Your task to perform on an android device: delete a single message in the gmail app Image 0: 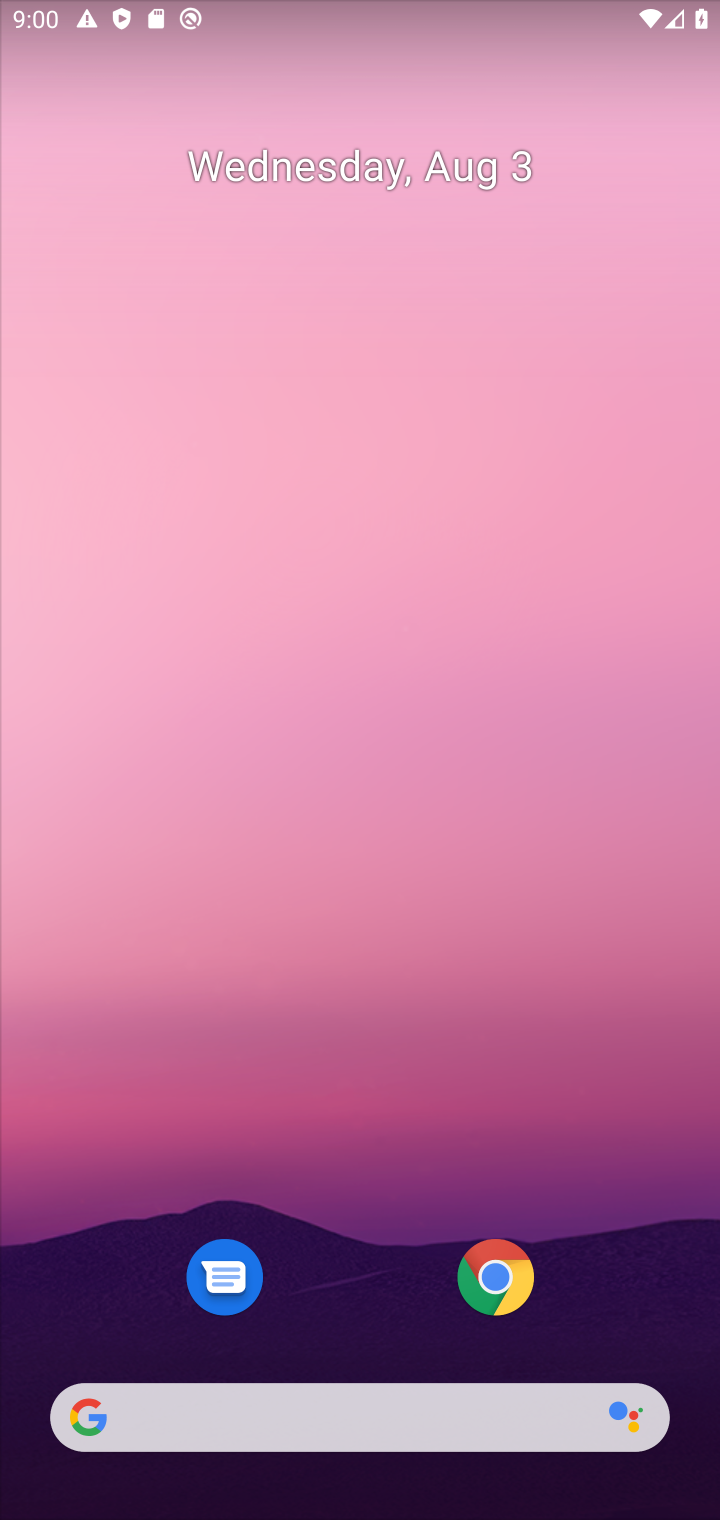
Step 0: drag from (371, 1287) to (389, 136)
Your task to perform on an android device: delete a single message in the gmail app Image 1: 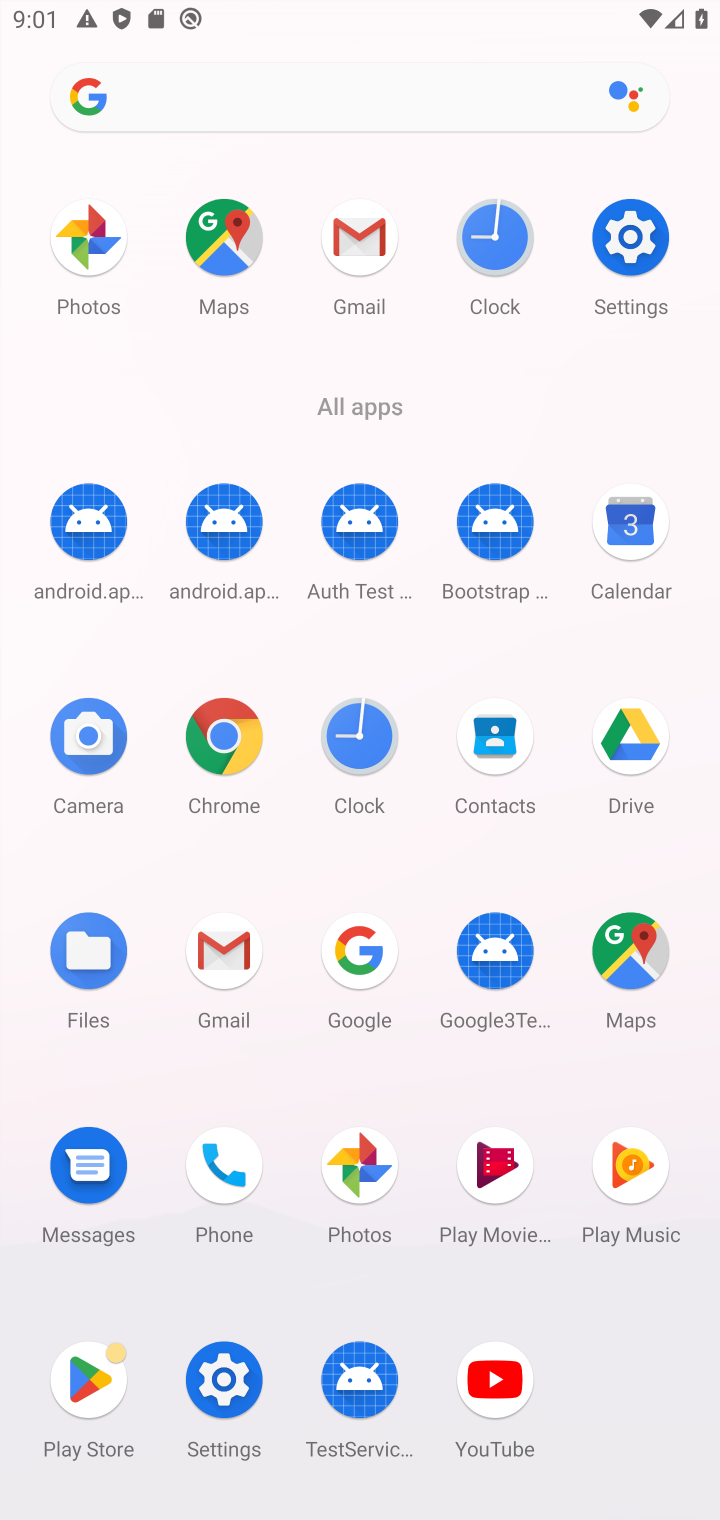
Step 1: click (229, 942)
Your task to perform on an android device: delete a single message in the gmail app Image 2: 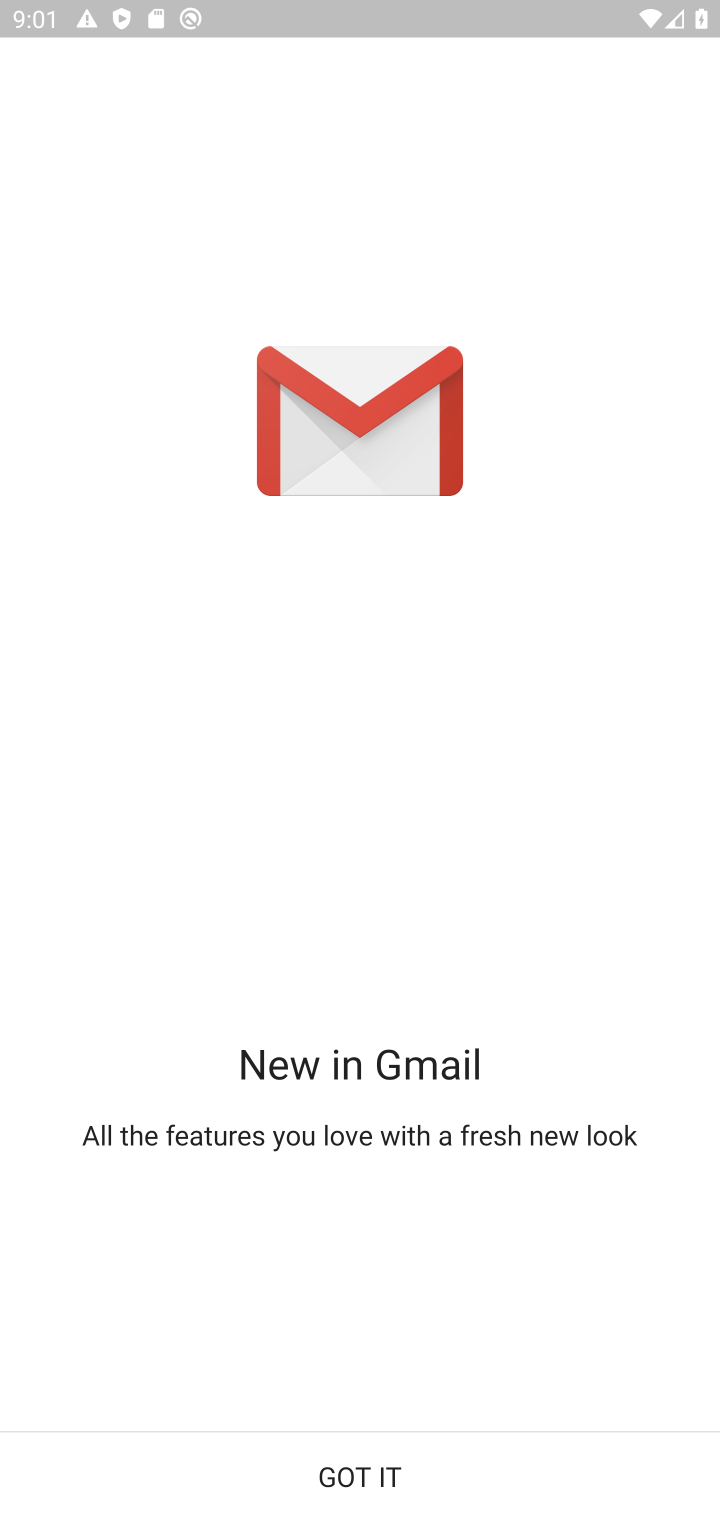
Step 2: click (371, 1465)
Your task to perform on an android device: delete a single message in the gmail app Image 3: 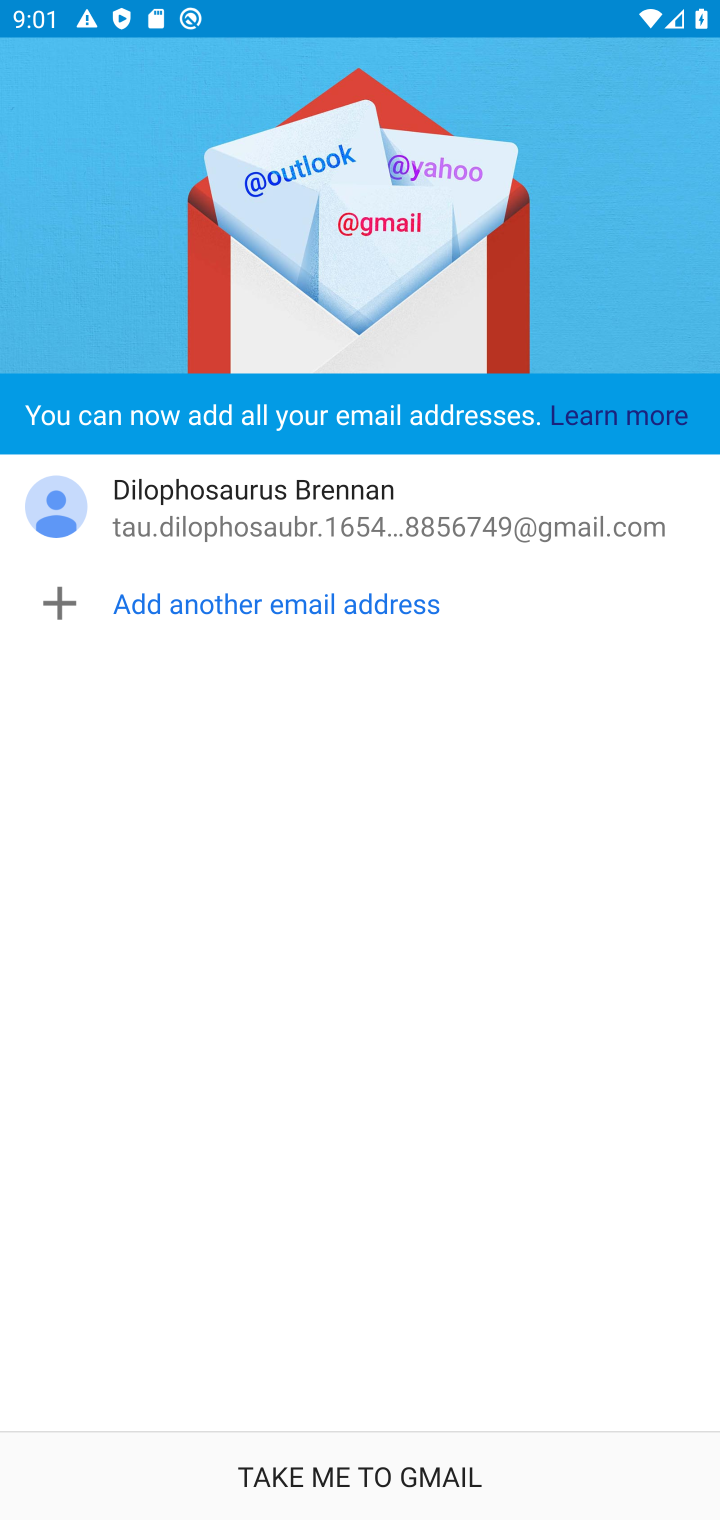
Step 3: click (371, 1465)
Your task to perform on an android device: delete a single message in the gmail app Image 4: 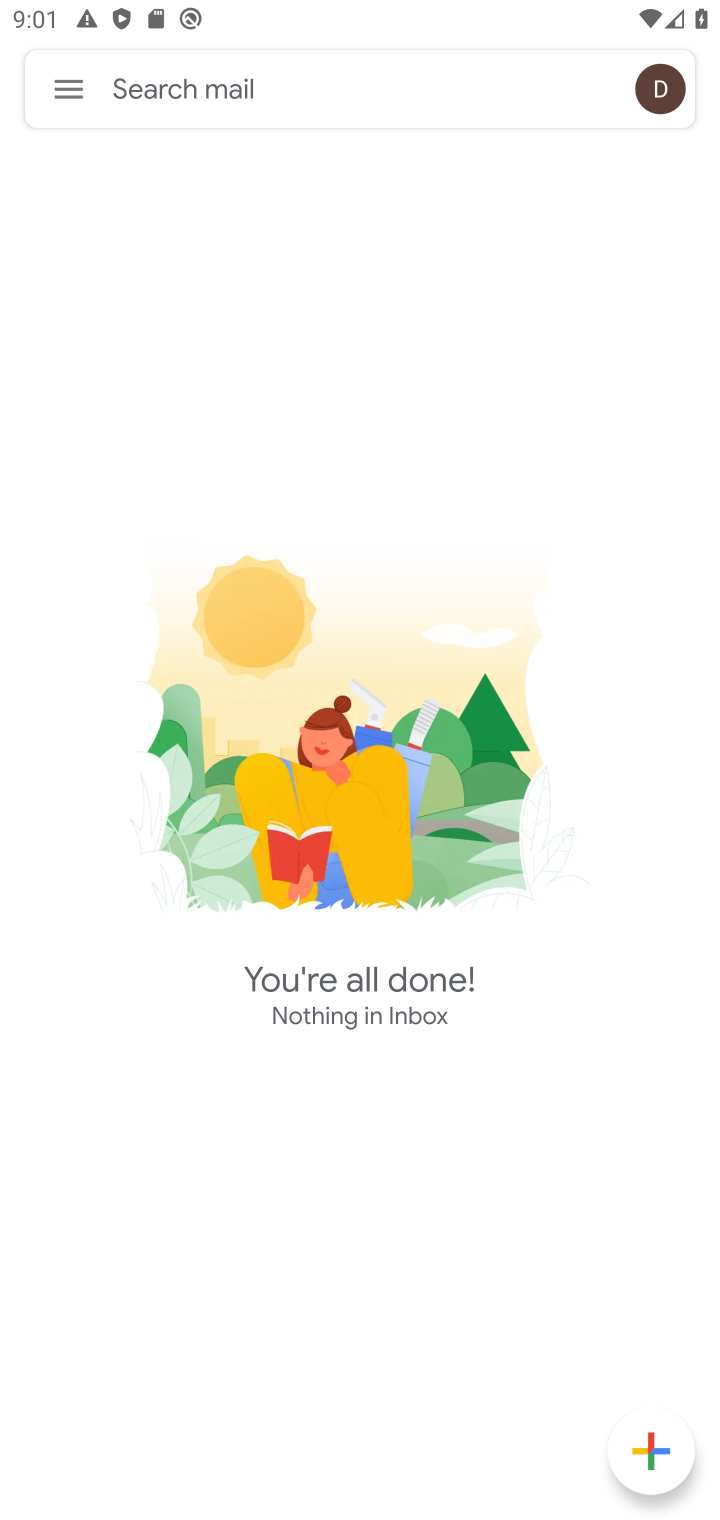
Step 4: click (65, 88)
Your task to perform on an android device: delete a single message in the gmail app Image 5: 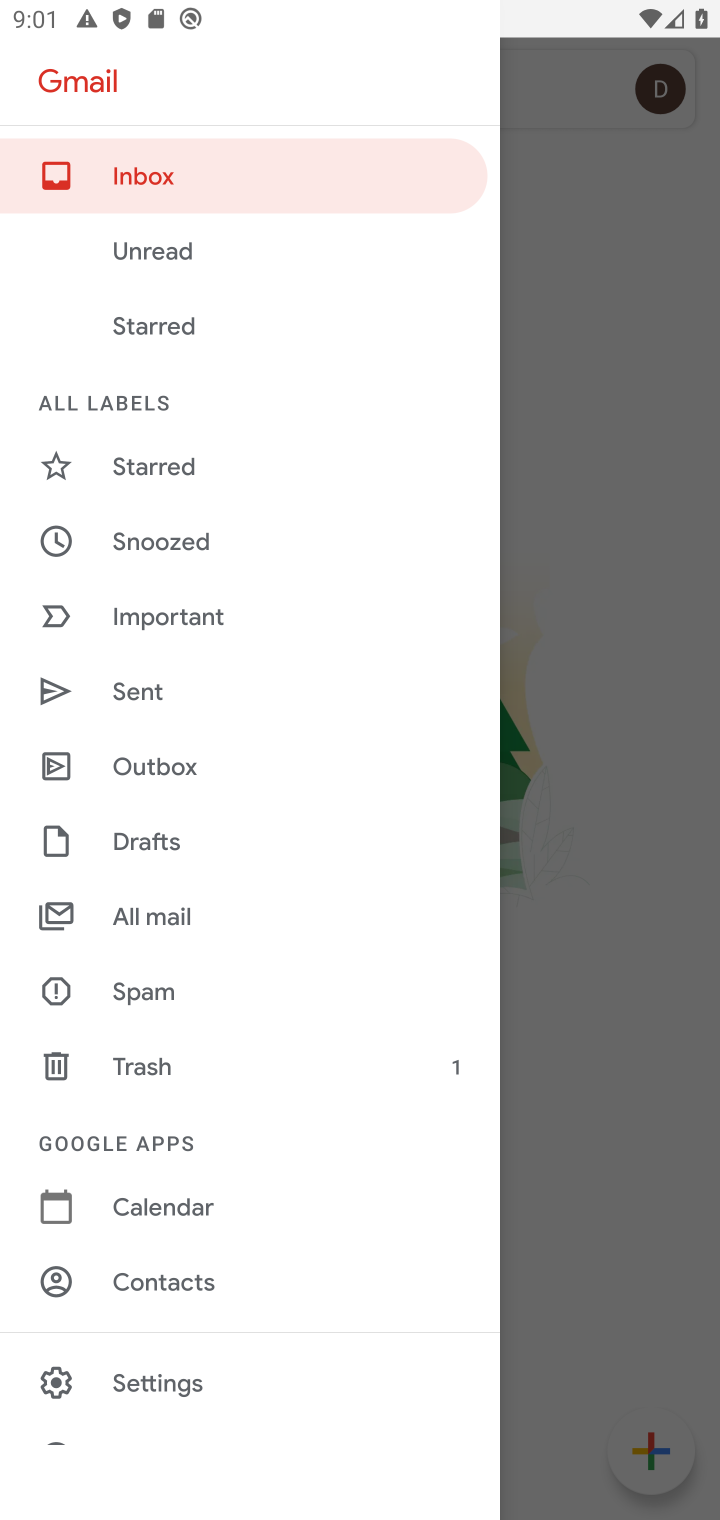
Step 5: click (167, 913)
Your task to perform on an android device: delete a single message in the gmail app Image 6: 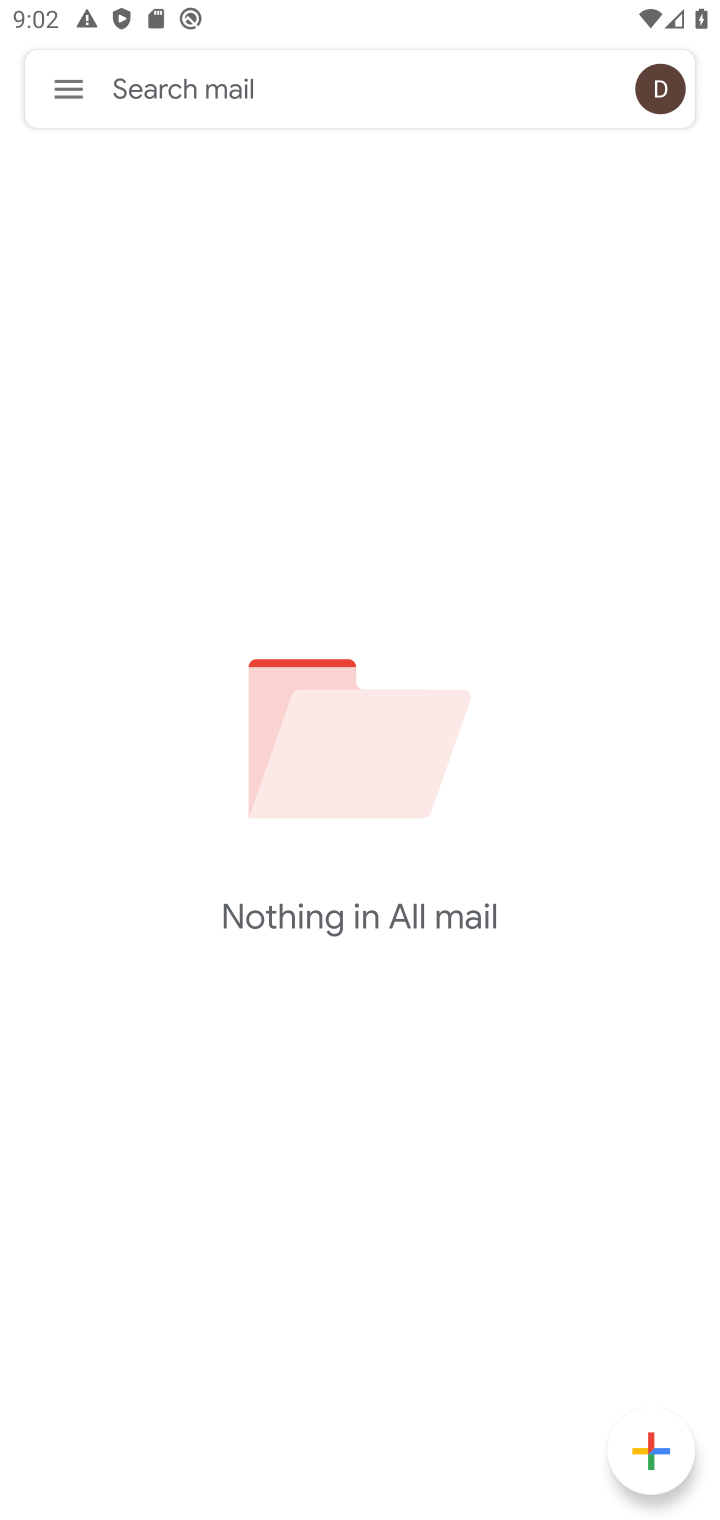
Step 6: task complete